Your task to perform on an android device: Open calendar and show me the first week of next month Image 0: 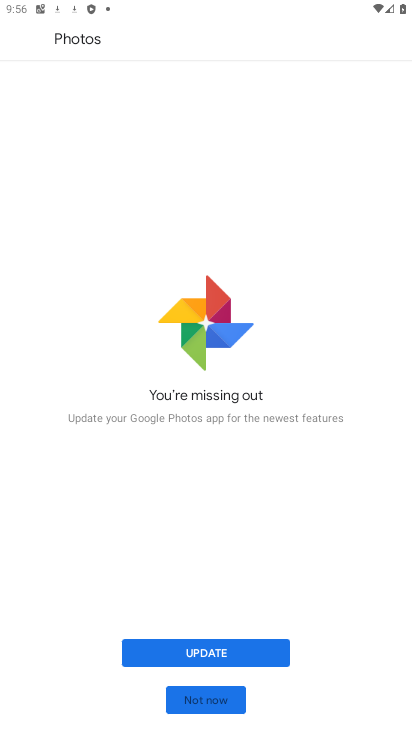
Step 0: press home button
Your task to perform on an android device: Open calendar and show me the first week of next month Image 1: 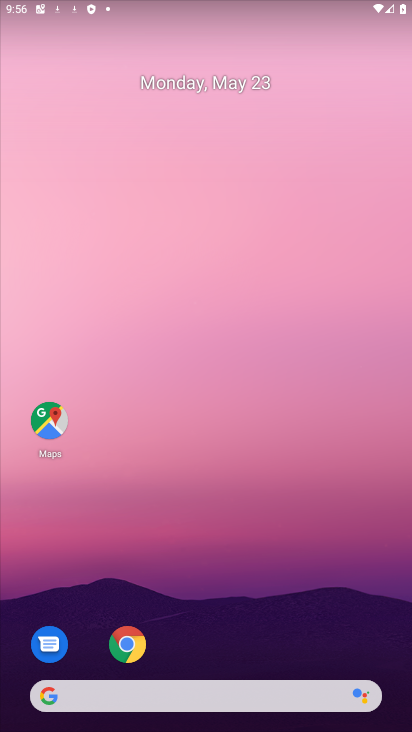
Step 1: drag from (273, 697) to (231, 140)
Your task to perform on an android device: Open calendar and show me the first week of next month Image 2: 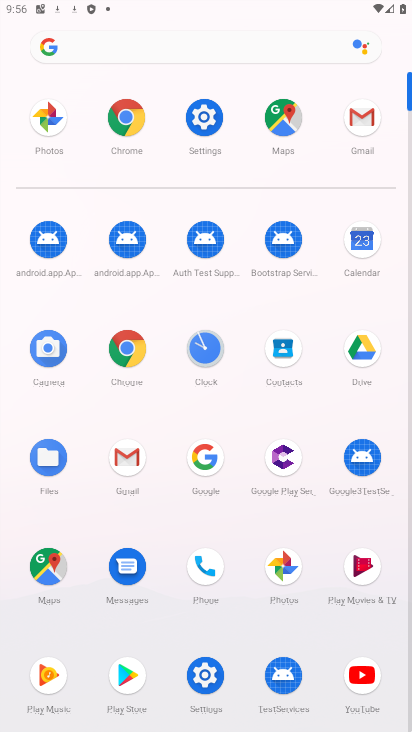
Step 2: click (356, 252)
Your task to perform on an android device: Open calendar and show me the first week of next month Image 3: 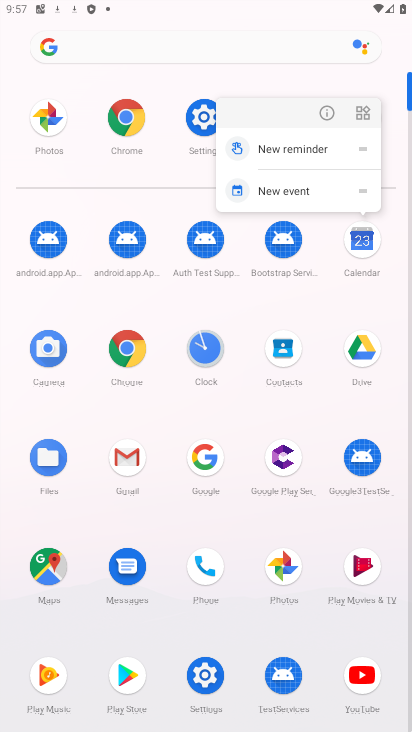
Step 3: click (348, 250)
Your task to perform on an android device: Open calendar and show me the first week of next month Image 4: 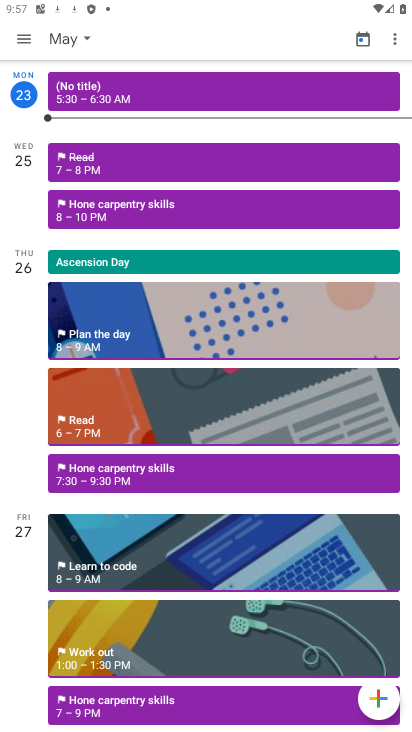
Step 4: click (35, 39)
Your task to perform on an android device: Open calendar and show me the first week of next month Image 5: 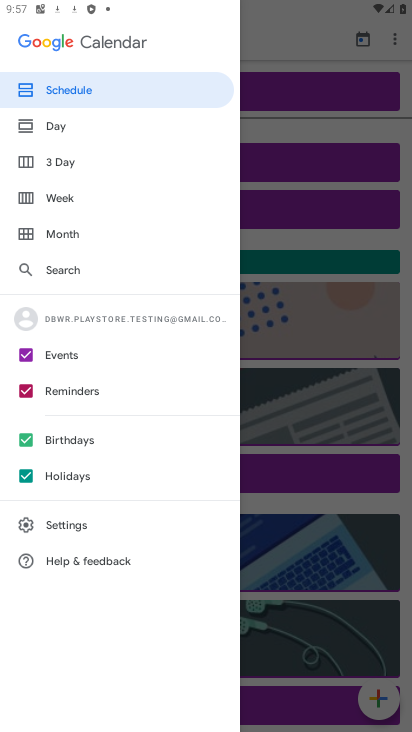
Step 5: click (75, 235)
Your task to perform on an android device: Open calendar and show me the first week of next month Image 6: 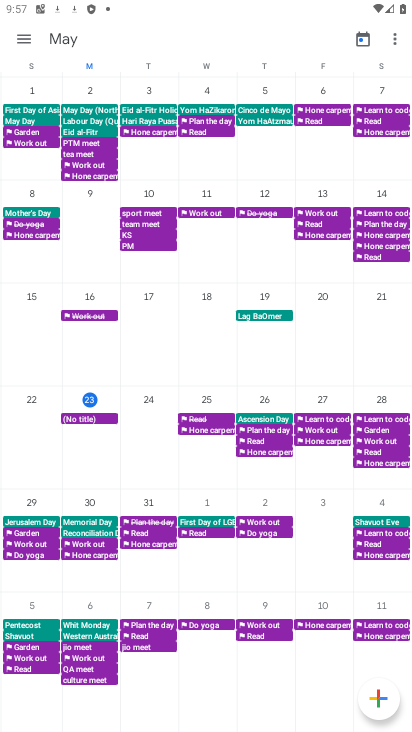
Step 6: drag from (351, 365) to (5, 410)
Your task to perform on an android device: Open calendar and show me the first week of next month Image 7: 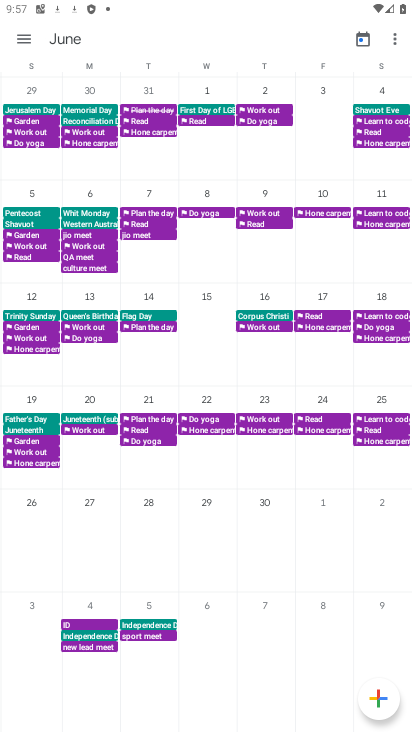
Step 7: click (198, 110)
Your task to perform on an android device: Open calendar and show me the first week of next month Image 8: 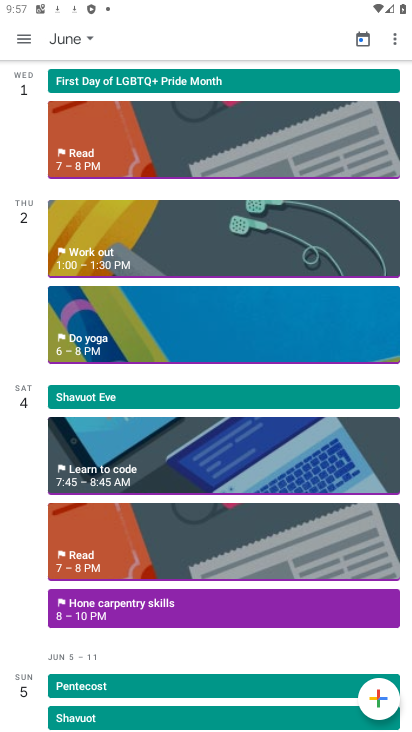
Step 8: task complete